Your task to perform on an android device: Open Chrome and go to settings Image 0: 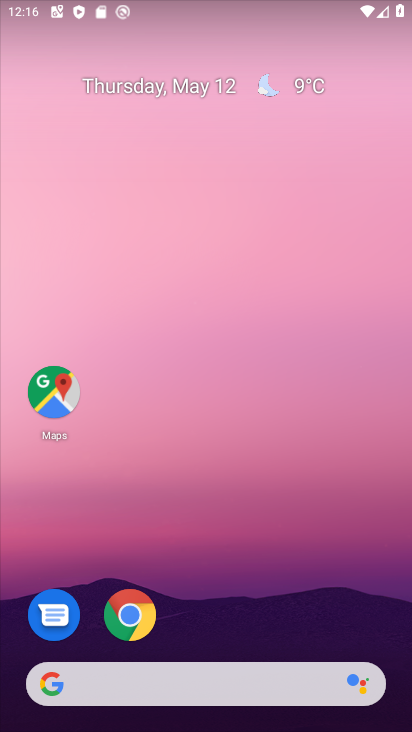
Step 0: click (124, 620)
Your task to perform on an android device: Open Chrome and go to settings Image 1: 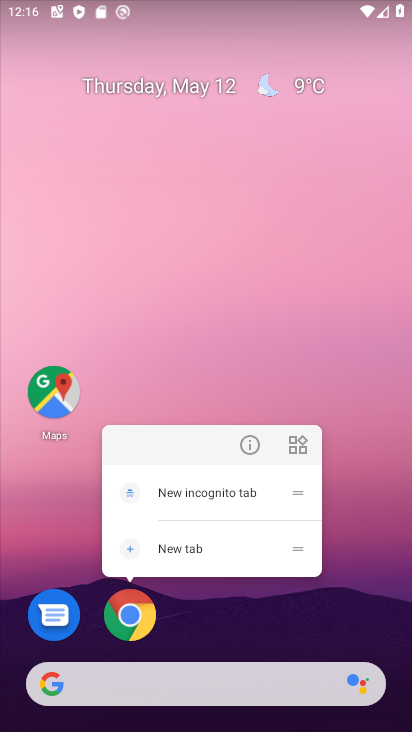
Step 1: click (123, 612)
Your task to perform on an android device: Open Chrome and go to settings Image 2: 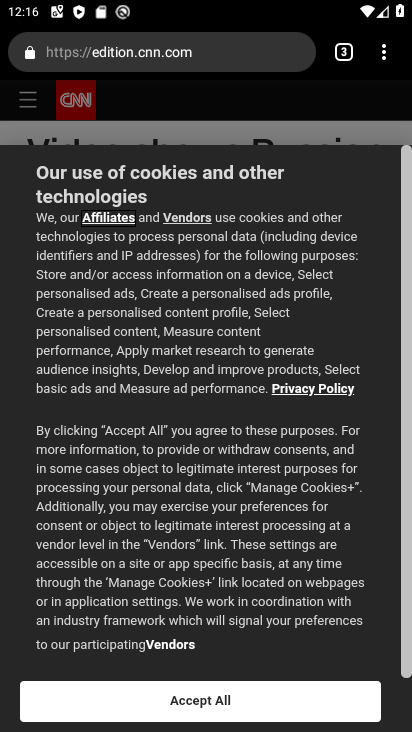
Step 2: task complete